Your task to perform on an android device: turn notification dots on Image 0: 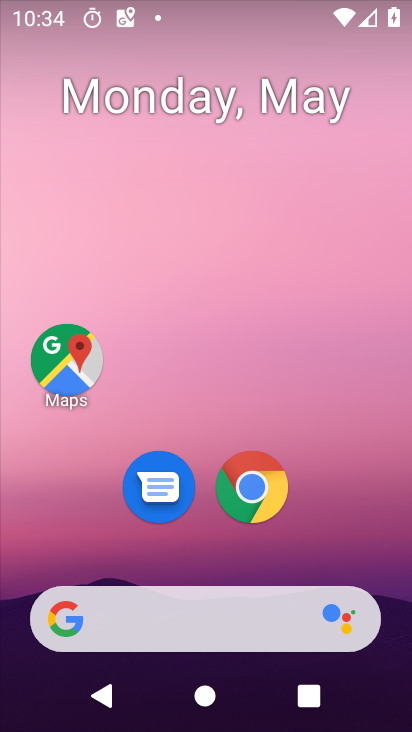
Step 0: drag from (331, 551) to (374, 52)
Your task to perform on an android device: turn notification dots on Image 1: 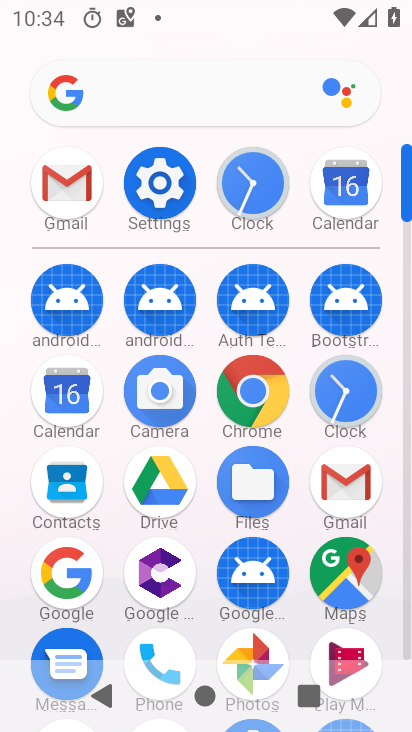
Step 1: click (159, 193)
Your task to perform on an android device: turn notification dots on Image 2: 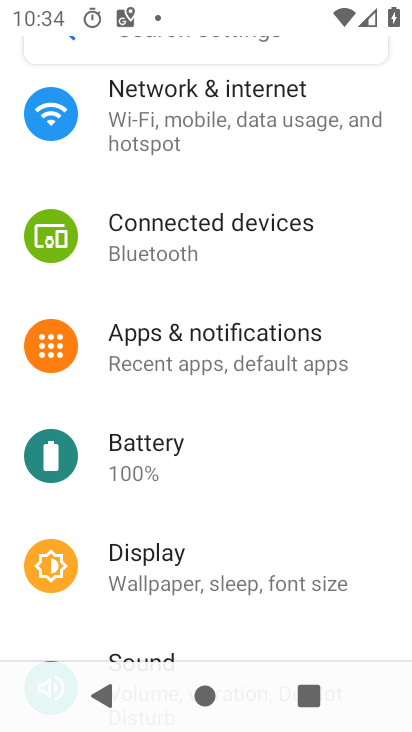
Step 2: click (181, 330)
Your task to perform on an android device: turn notification dots on Image 3: 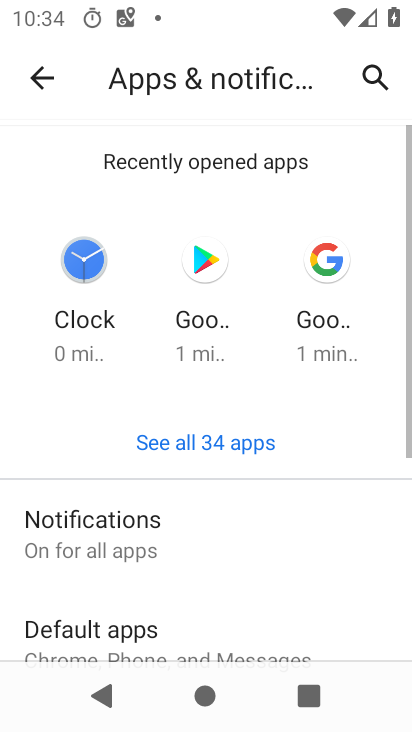
Step 3: click (92, 543)
Your task to perform on an android device: turn notification dots on Image 4: 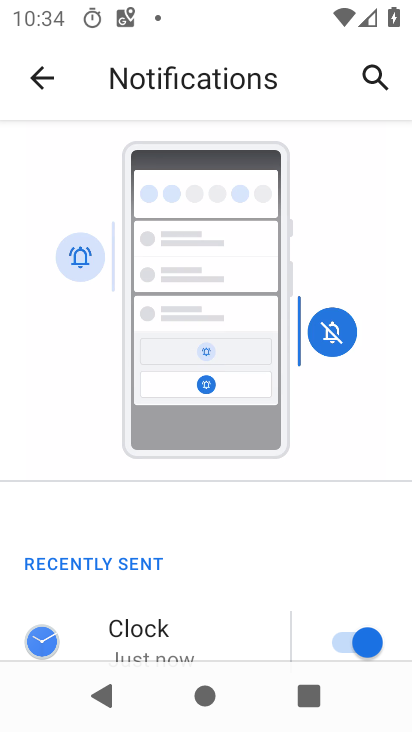
Step 4: drag from (94, 543) to (174, 358)
Your task to perform on an android device: turn notification dots on Image 5: 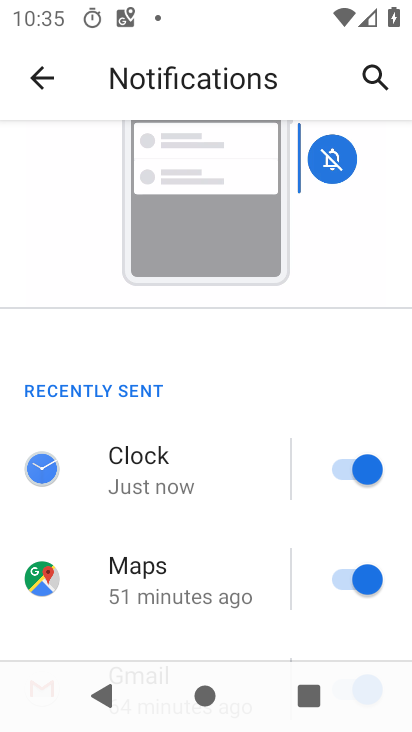
Step 5: drag from (118, 551) to (184, 288)
Your task to perform on an android device: turn notification dots on Image 6: 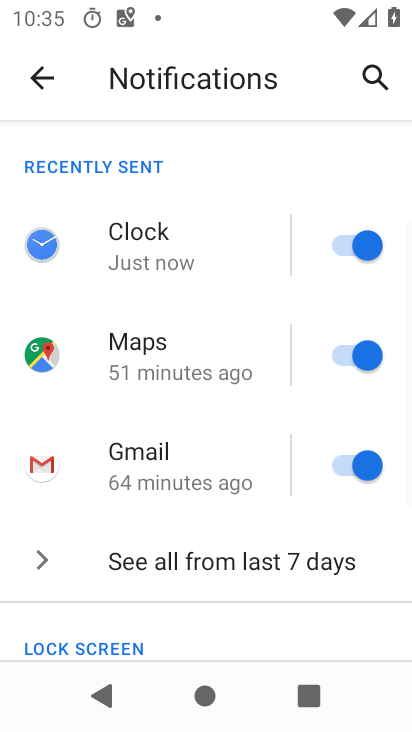
Step 6: drag from (216, 518) to (239, 290)
Your task to perform on an android device: turn notification dots on Image 7: 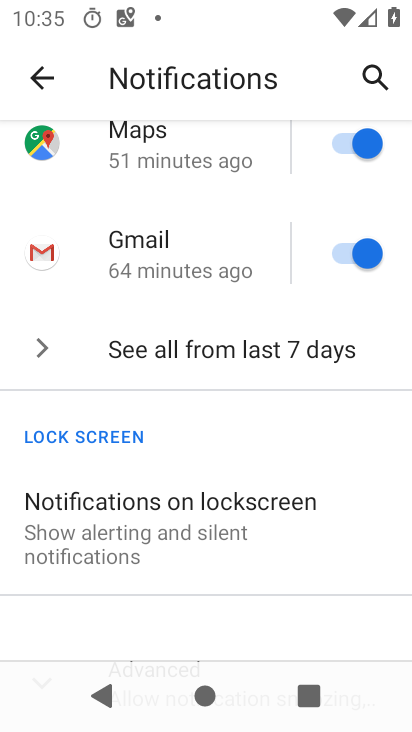
Step 7: drag from (201, 534) to (240, 236)
Your task to perform on an android device: turn notification dots on Image 8: 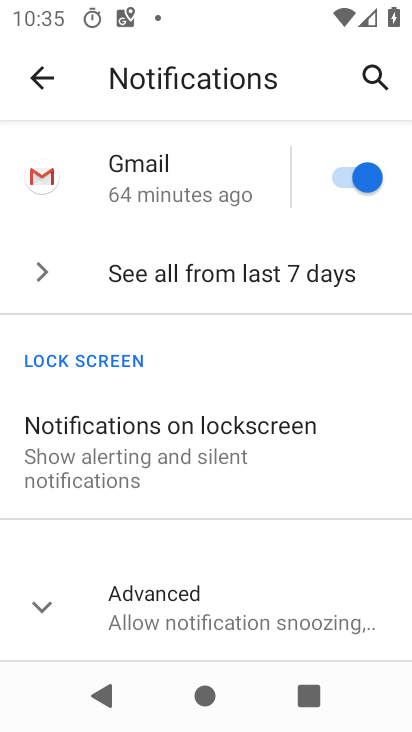
Step 8: click (155, 622)
Your task to perform on an android device: turn notification dots on Image 9: 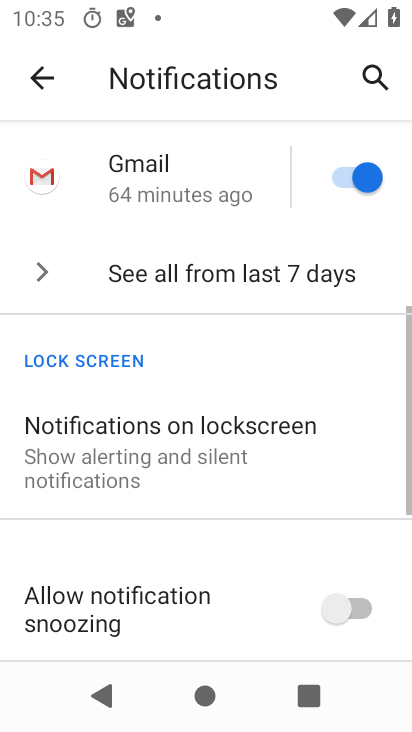
Step 9: drag from (224, 570) to (255, 226)
Your task to perform on an android device: turn notification dots on Image 10: 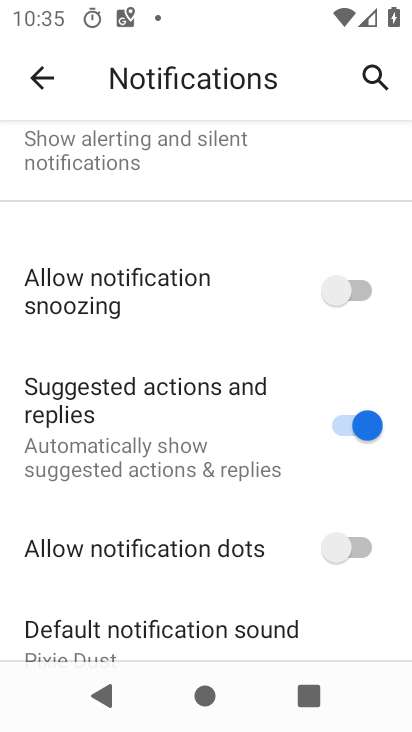
Step 10: click (363, 541)
Your task to perform on an android device: turn notification dots on Image 11: 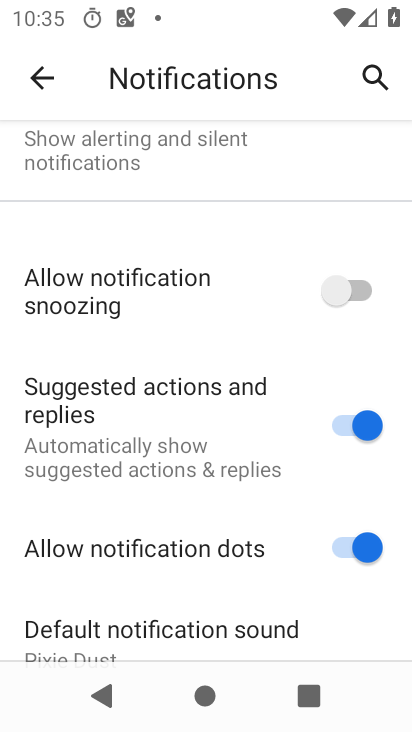
Step 11: task complete